Your task to perform on an android device: Add "logitech g903" to the cart on target.com, then select checkout. Image 0: 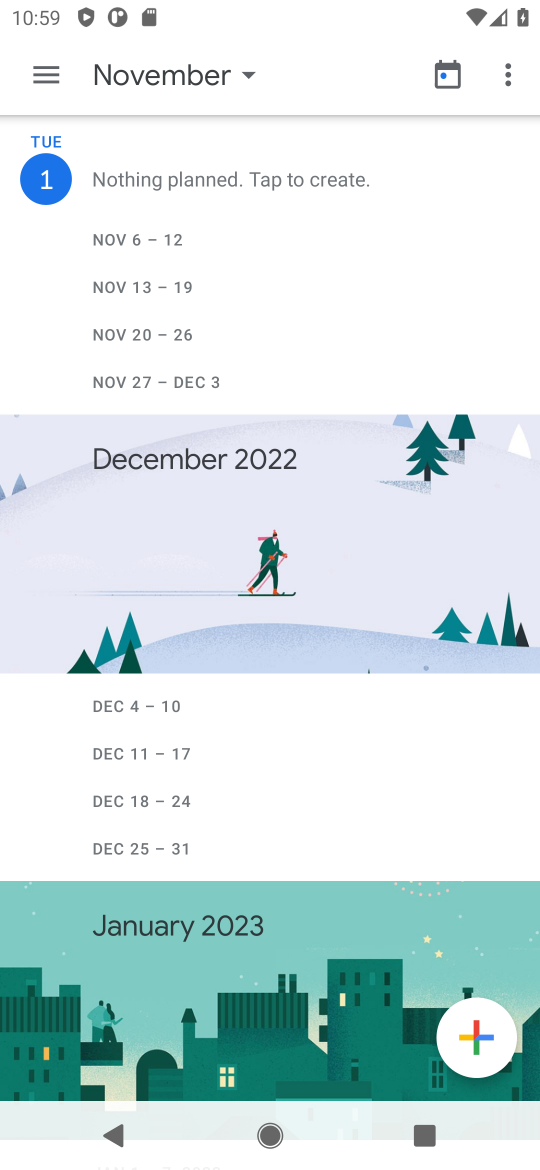
Step 0: press home button
Your task to perform on an android device: Add "logitech g903" to the cart on target.com, then select checkout. Image 1: 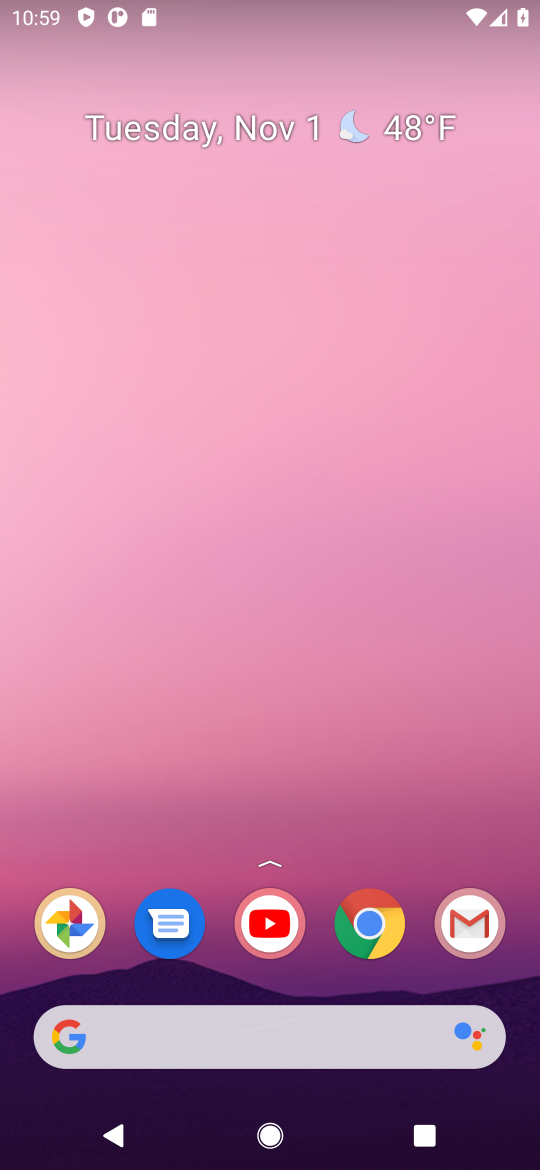
Step 1: click (358, 915)
Your task to perform on an android device: Add "logitech g903" to the cart on target.com, then select checkout. Image 2: 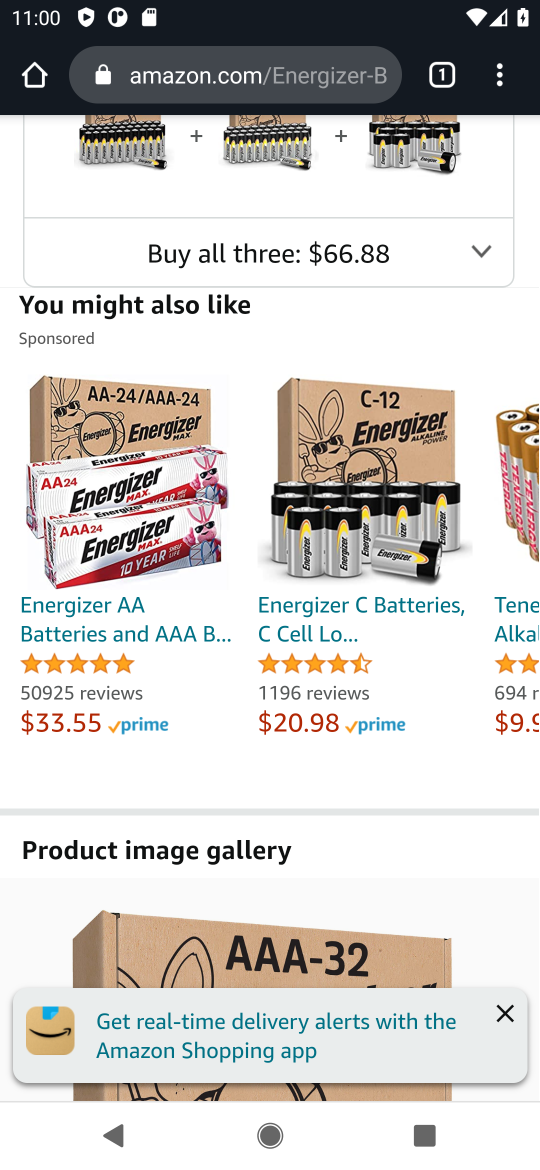
Step 2: click (233, 72)
Your task to perform on an android device: Add "logitech g903" to the cart on target.com, then select checkout. Image 3: 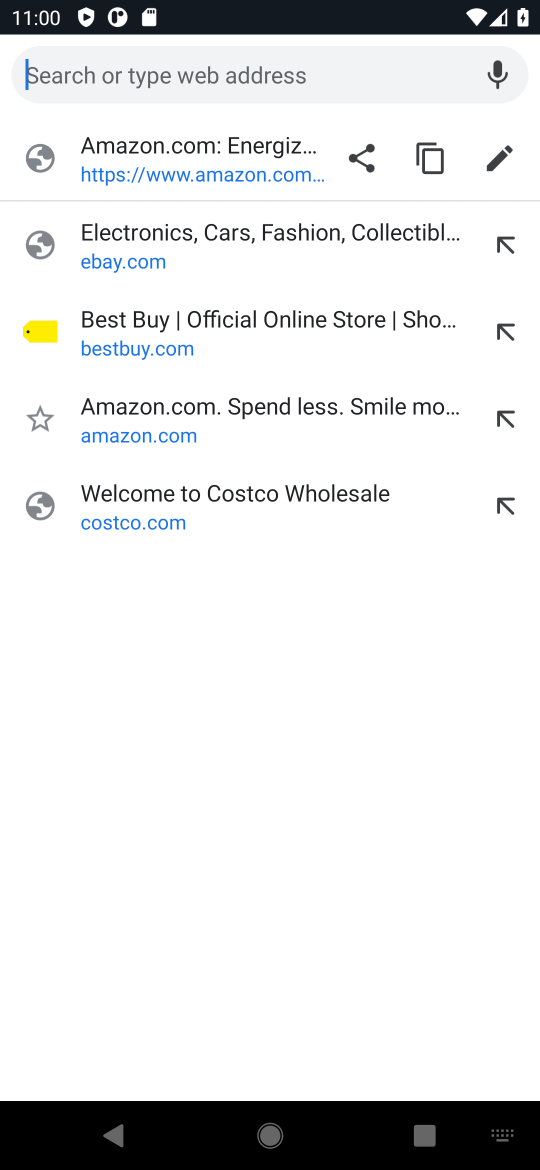
Step 3: type "target.com"
Your task to perform on an android device: Add "logitech g903" to the cart on target.com, then select checkout. Image 4: 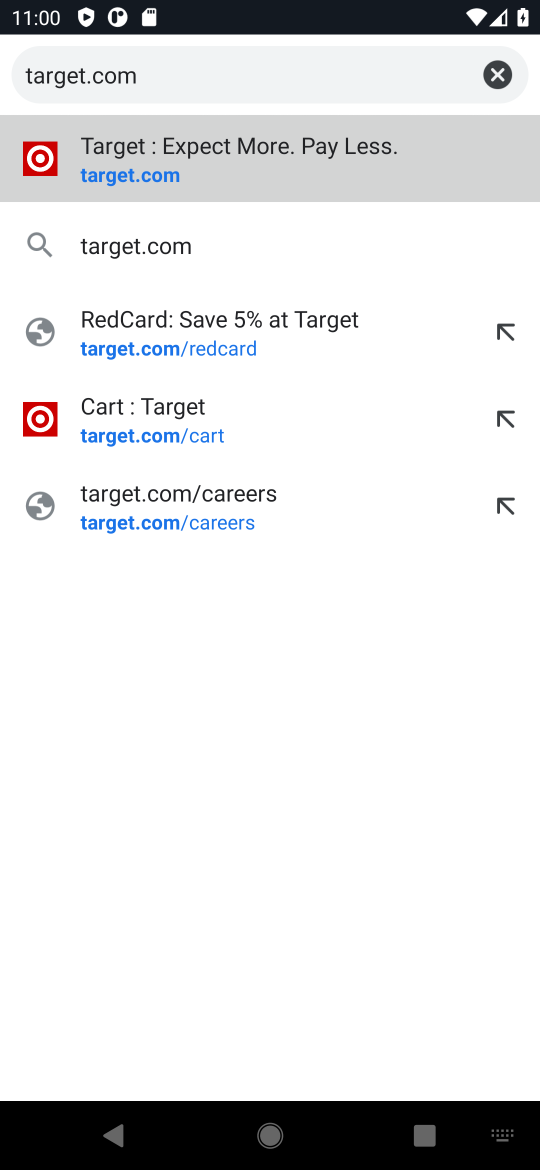
Step 4: click (358, 146)
Your task to perform on an android device: Add "logitech g903" to the cart on target.com, then select checkout. Image 5: 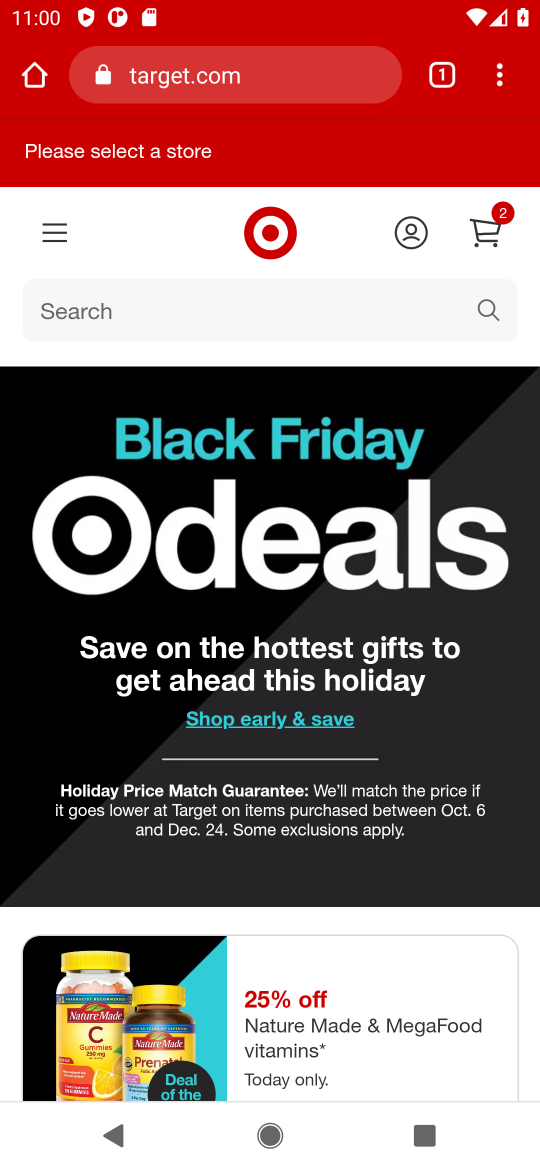
Step 5: click (318, 311)
Your task to perform on an android device: Add "logitech g903" to the cart on target.com, then select checkout. Image 6: 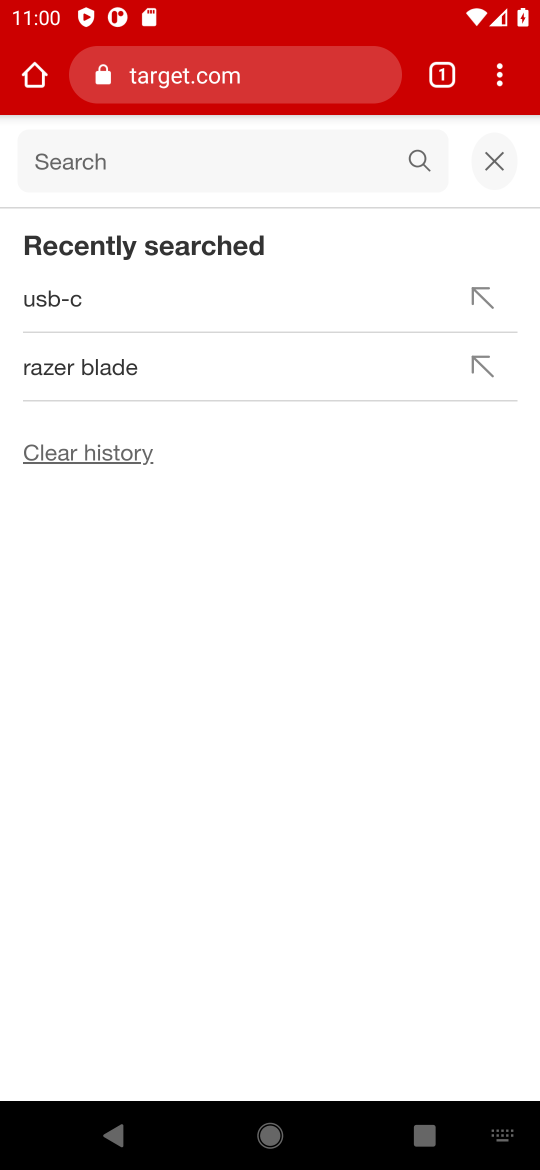
Step 6: type "logitech g903"
Your task to perform on an android device: Add "logitech g903" to the cart on target.com, then select checkout. Image 7: 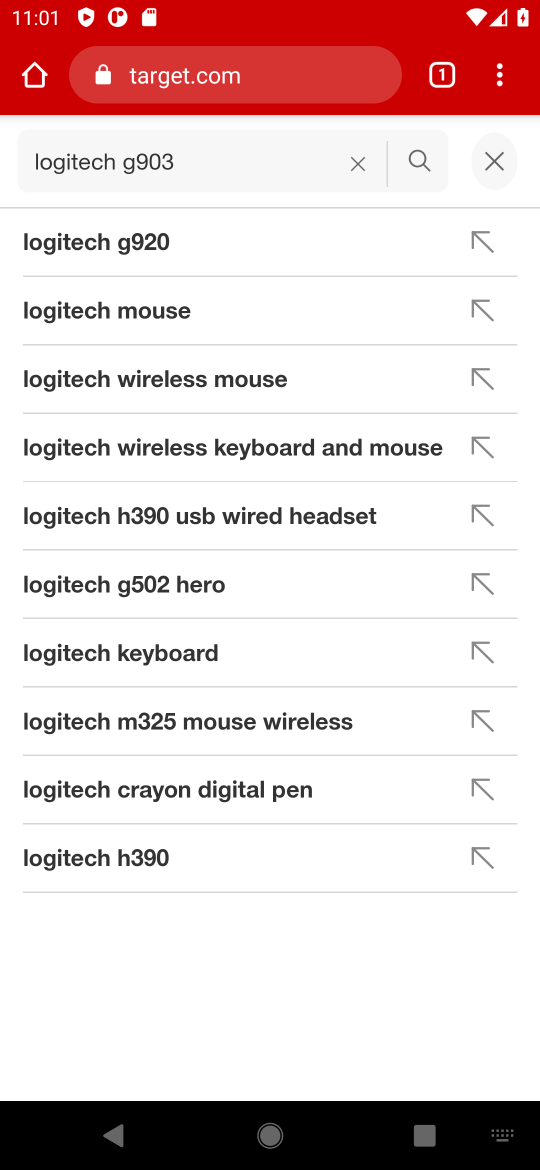
Step 7: press enter
Your task to perform on an android device: Add "logitech g903" to the cart on target.com, then select checkout. Image 8: 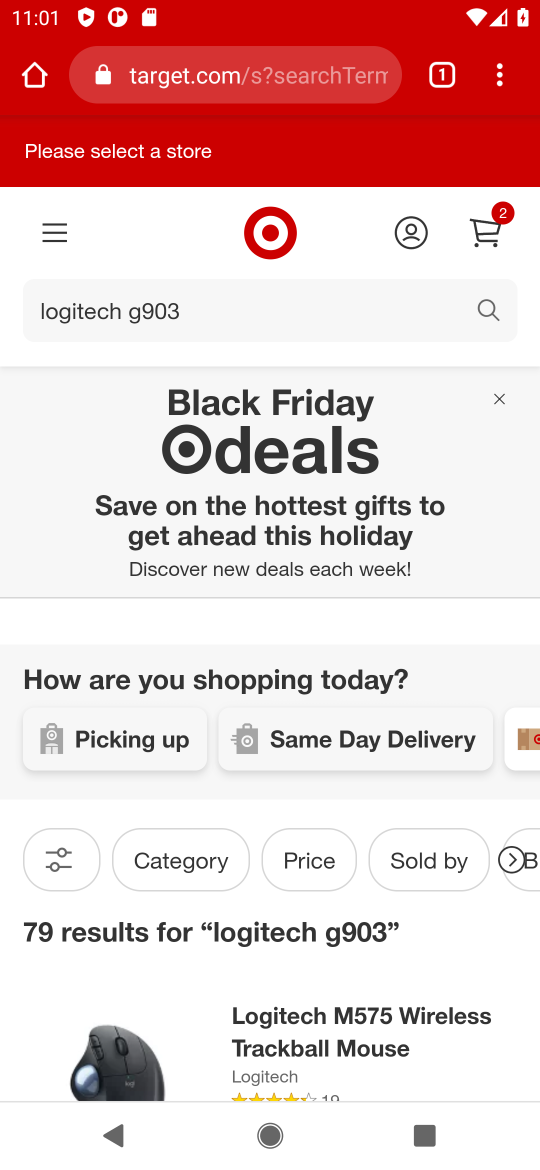
Step 8: task complete